Your task to perform on an android device: Open Yahoo.com Image 0: 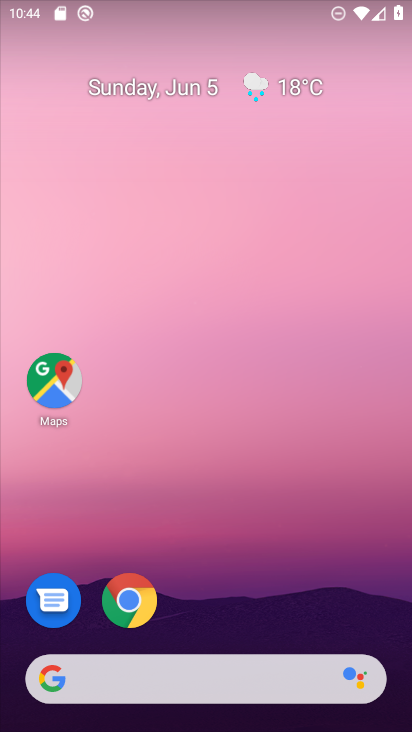
Step 0: click (134, 614)
Your task to perform on an android device: Open Yahoo.com Image 1: 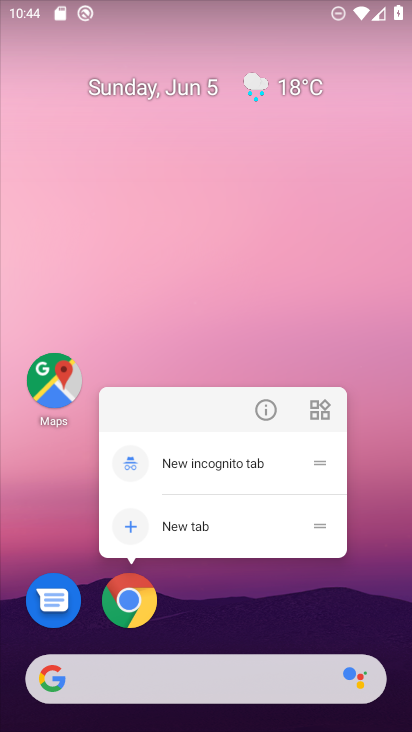
Step 1: click (122, 598)
Your task to perform on an android device: Open Yahoo.com Image 2: 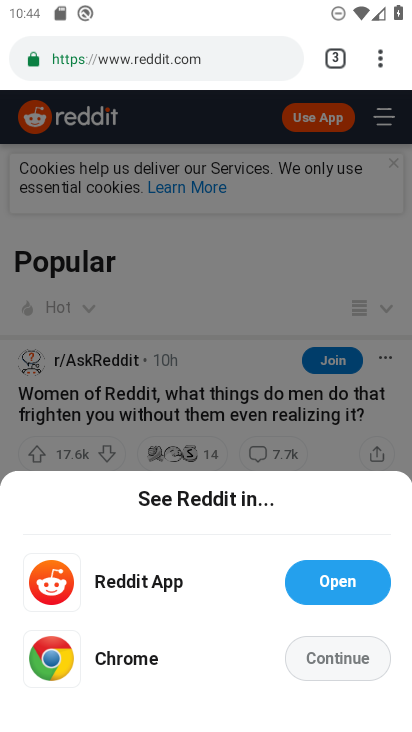
Step 2: click (337, 55)
Your task to perform on an android device: Open Yahoo.com Image 3: 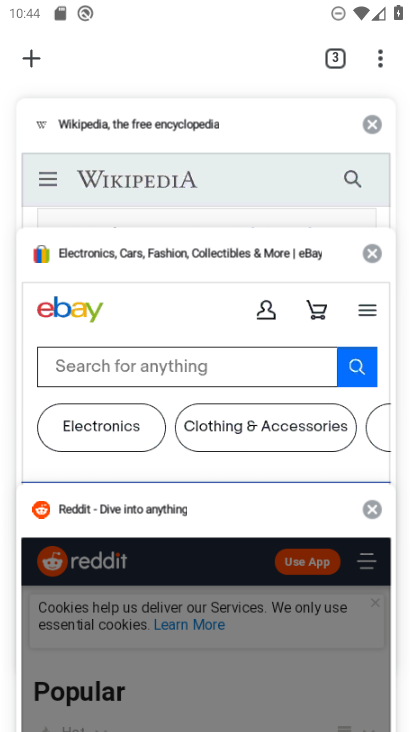
Step 3: click (36, 52)
Your task to perform on an android device: Open Yahoo.com Image 4: 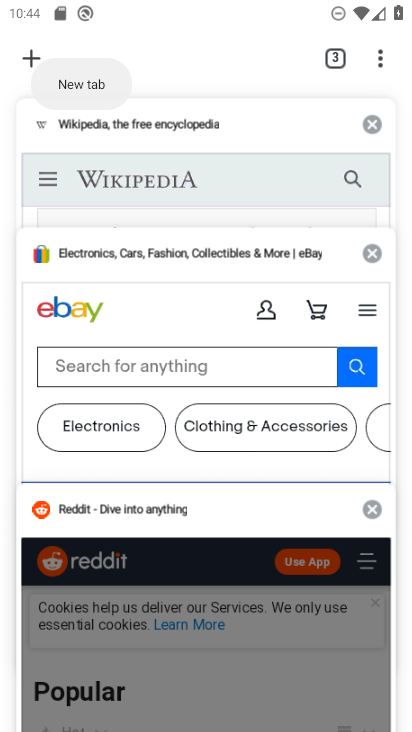
Step 4: click (19, 61)
Your task to perform on an android device: Open Yahoo.com Image 5: 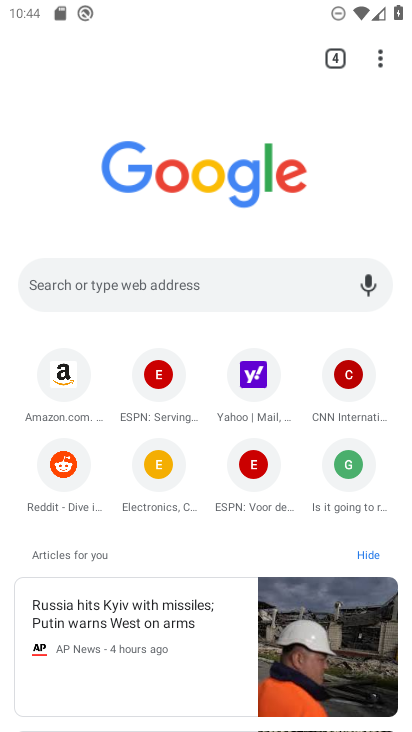
Step 5: click (250, 369)
Your task to perform on an android device: Open Yahoo.com Image 6: 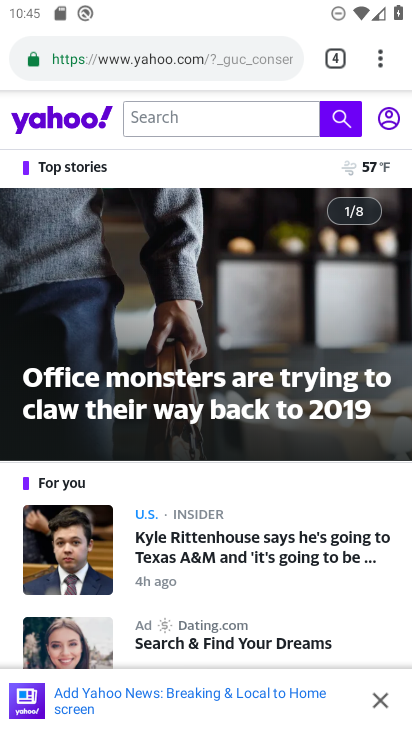
Step 6: task complete